Your task to perform on an android device: Set the phone to "Do not disturb". Image 0: 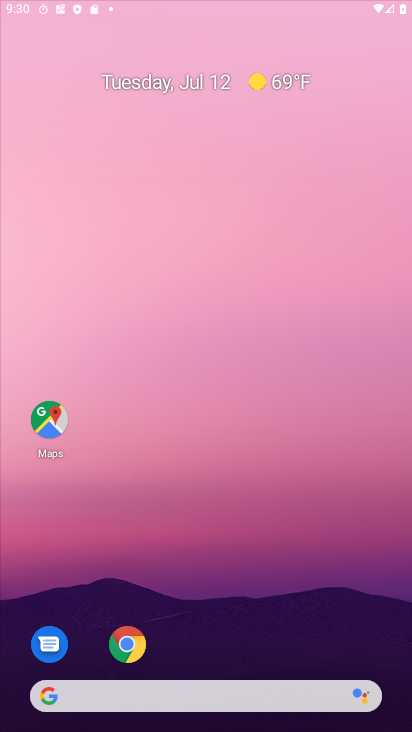
Step 0: press home button
Your task to perform on an android device: Set the phone to "Do not disturb". Image 1: 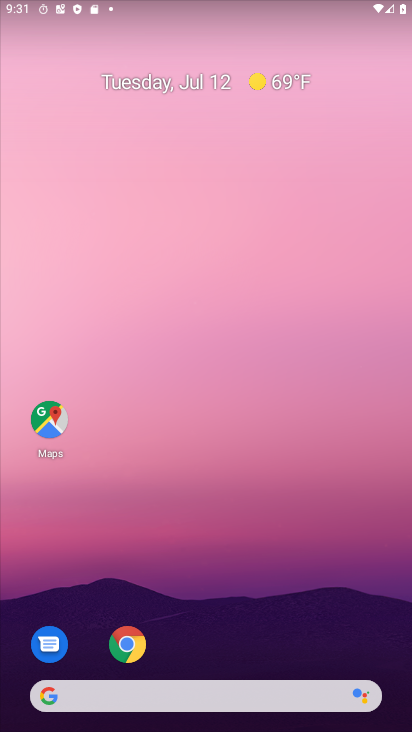
Step 1: drag from (210, 10) to (223, 542)
Your task to perform on an android device: Set the phone to "Do not disturb". Image 2: 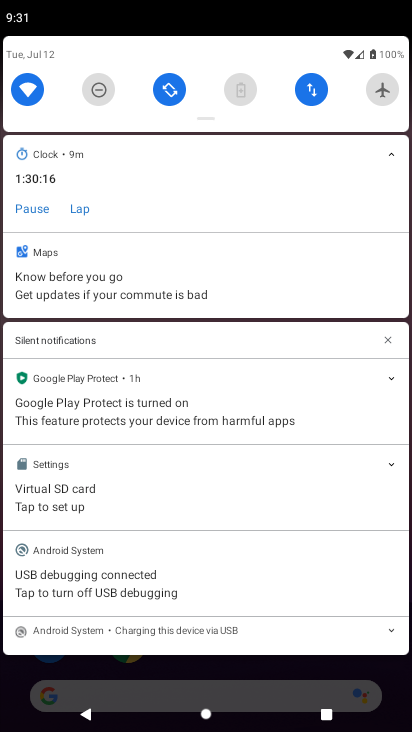
Step 2: click (102, 93)
Your task to perform on an android device: Set the phone to "Do not disturb". Image 3: 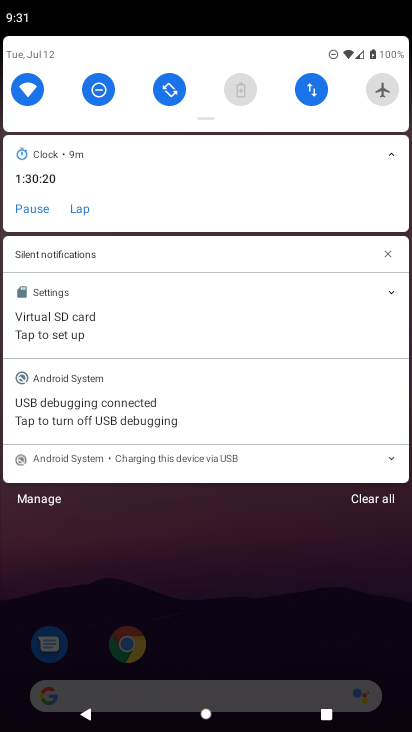
Step 3: task complete